Your task to perform on an android device: turn on location history Image 0: 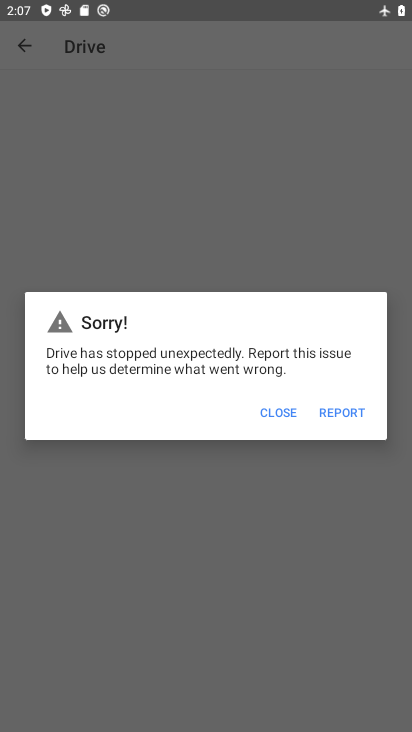
Step 0: press home button
Your task to perform on an android device: turn on location history Image 1: 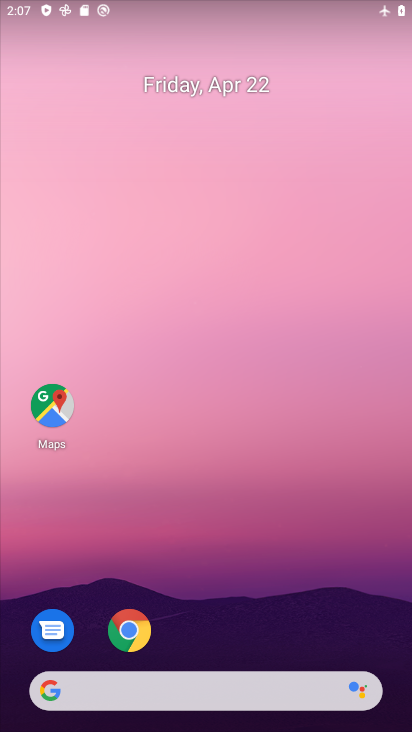
Step 1: drag from (384, 538) to (361, 146)
Your task to perform on an android device: turn on location history Image 2: 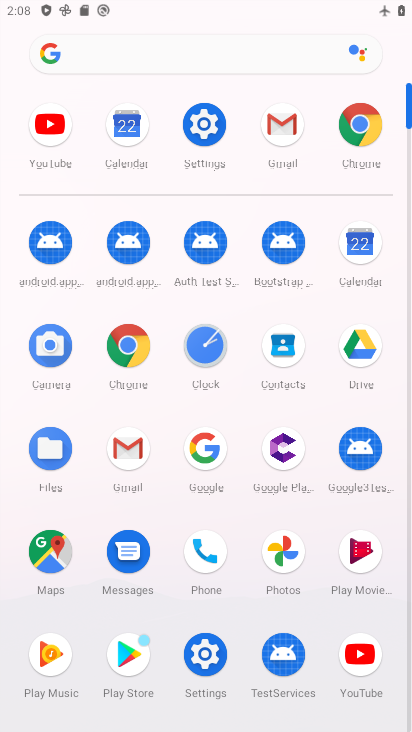
Step 2: click (208, 144)
Your task to perform on an android device: turn on location history Image 3: 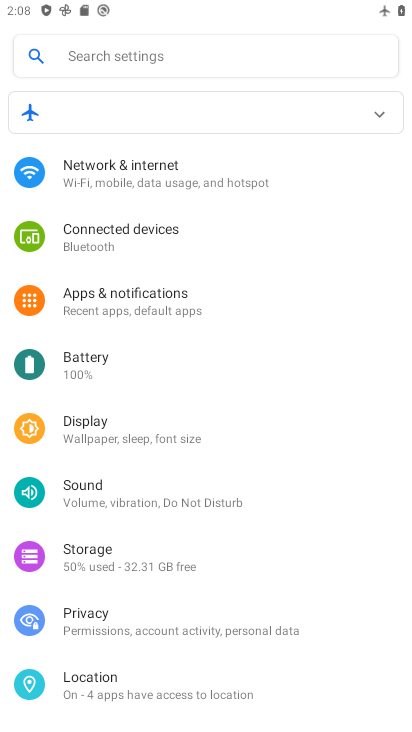
Step 3: drag from (218, 464) to (266, 280)
Your task to perform on an android device: turn on location history Image 4: 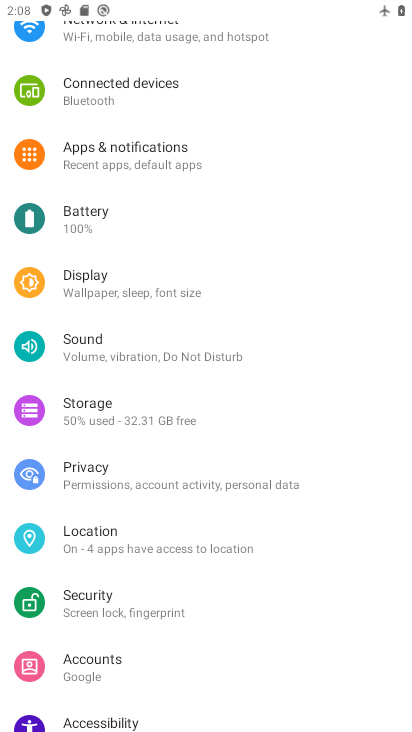
Step 4: click (165, 532)
Your task to perform on an android device: turn on location history Image 5: 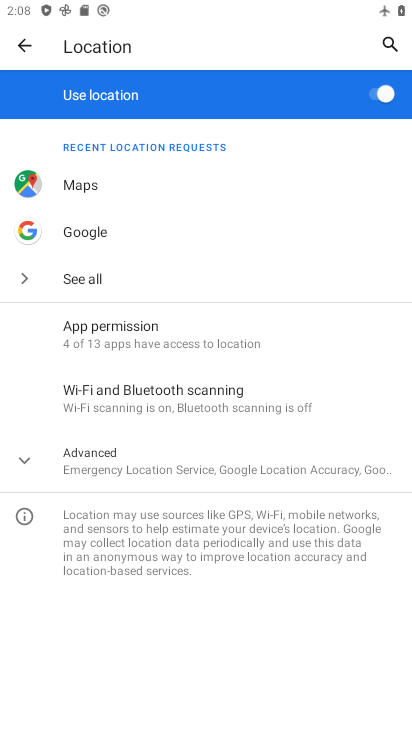
Step 5: click (115, 459)
Your task to perform on an android device: turn on location history Image 6: 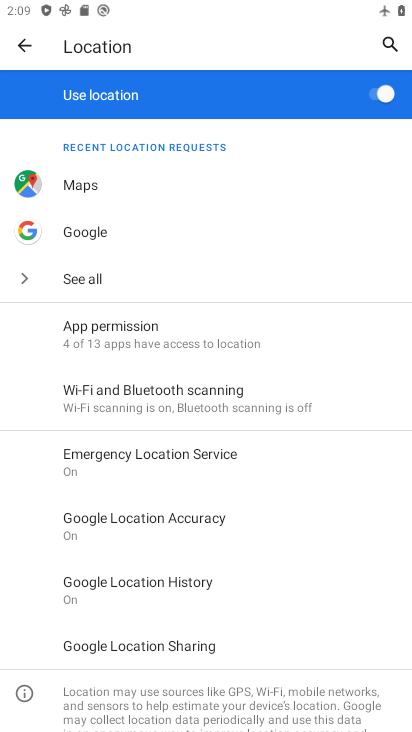
Step 6: task complete